Your task to perform on an android device: open sync settings in chrome Image 0: 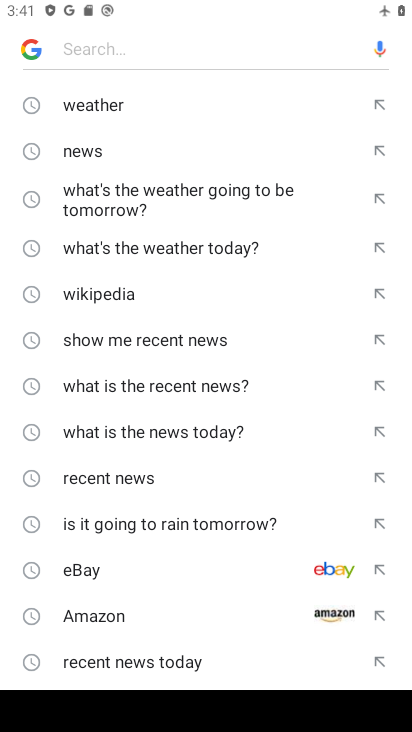
Step 0: press home button
Your task to perform on an android device: open sync settings in chrome Image 1: 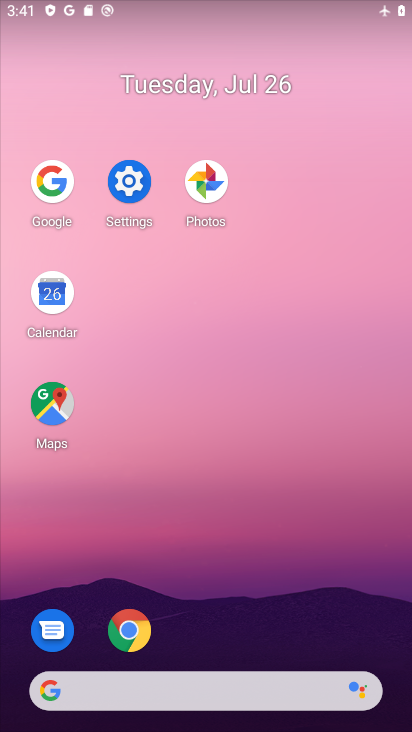
Step 1: click (137, 168)
Your task to perform on an android device: open sync settings in chrome Image 2: 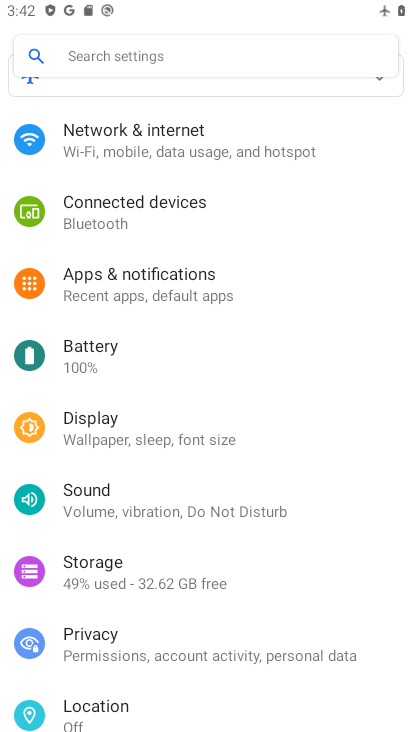
Step 2: click (149, 171)
Your task to perform on an android device: open sync settings in chrome Image 3: 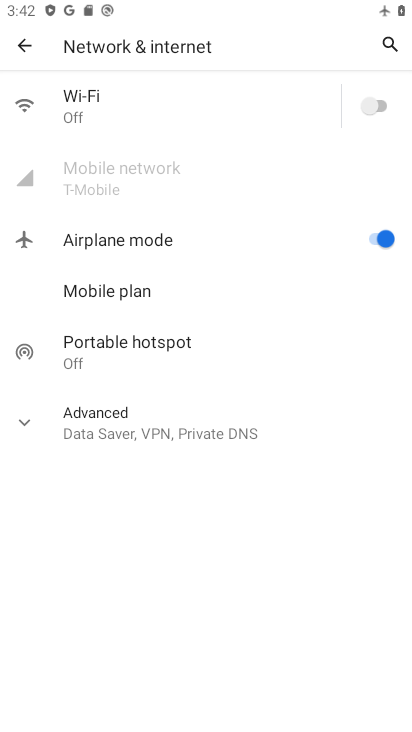
Step 3: click (386, 99)
Your task to perform on an android device: open sync settings in chrome Image 4: 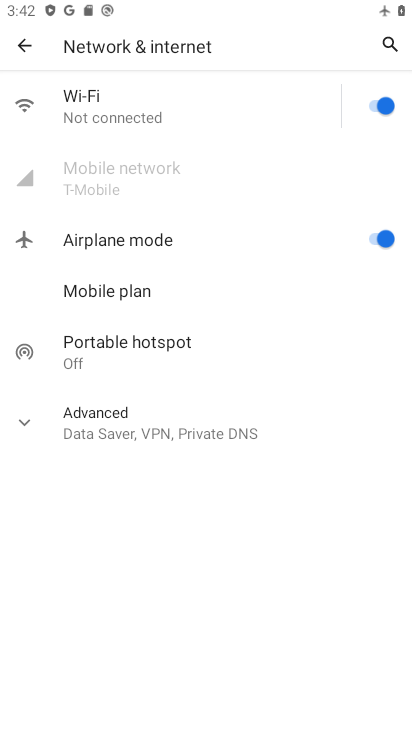
Step 4: click (380, 238)
Your task to perform on an android device: open sync settings in chrome Image 5: 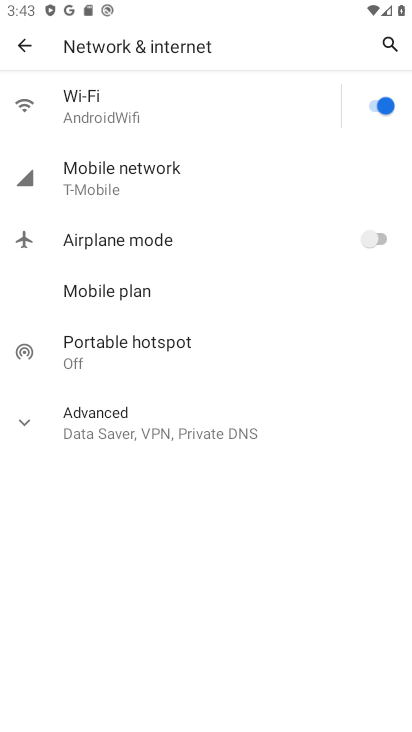
Step 5: task complete